Your task to perform on an android device: Open network settings Image 0: 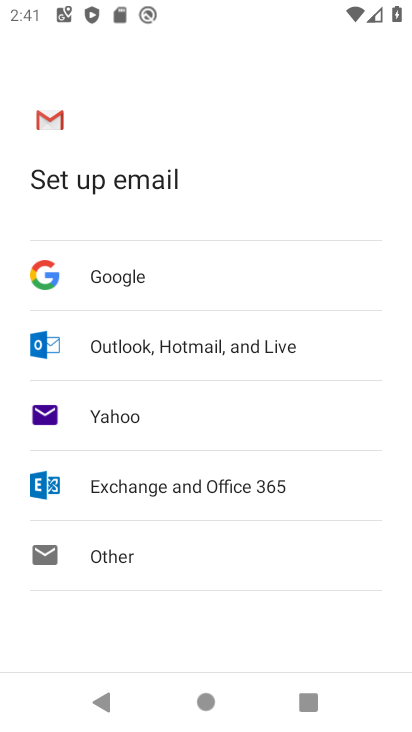
Step 0: press back button
Your task to perform on an android device: Open network settings Image 1: 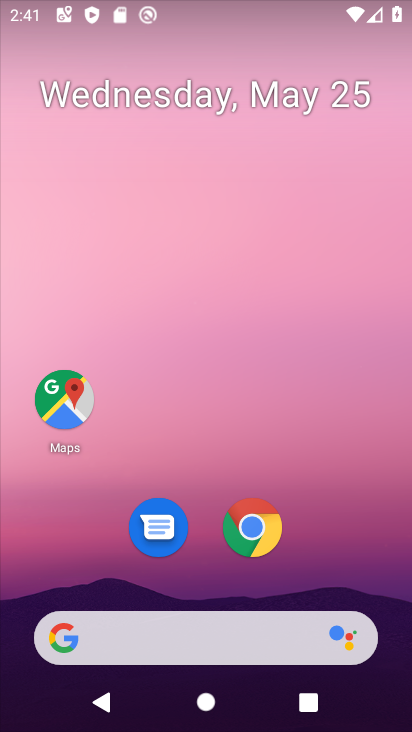
Step 1: drag from (172, 577) to (279, 33)
Your task to perform on an android device: Open network settings Image 2: 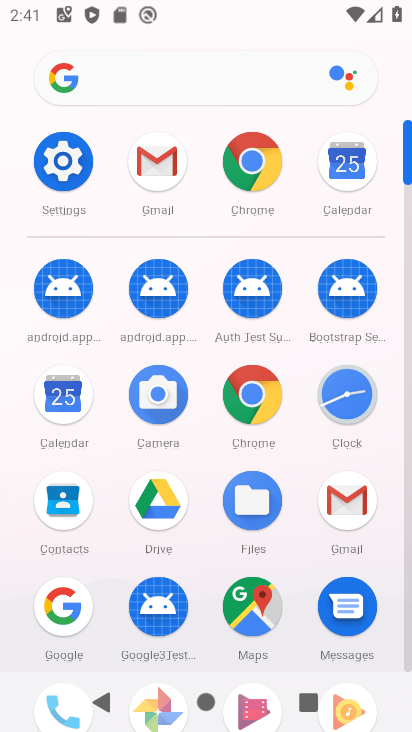
Step 2: click (63, 151)
Your task to perform on an android device: Open network settings Image 3: 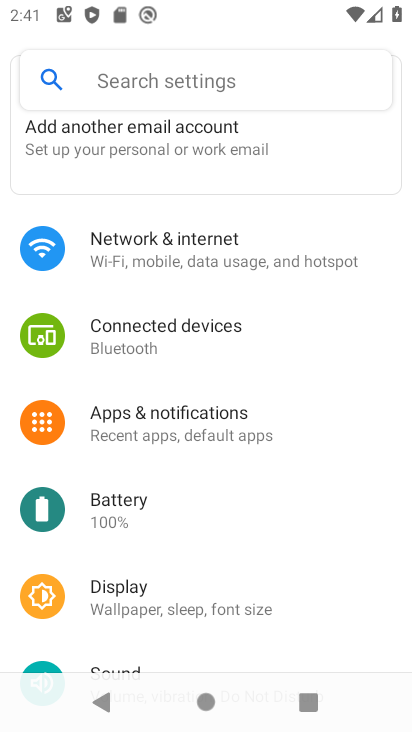
Step 3: click (134, 253)
Your task to perform on an android device: Open network settings Image 4: 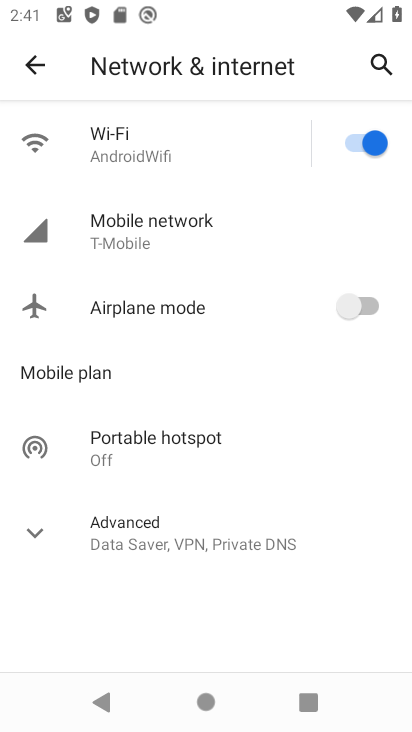
Step 4: task complete